Your task to perform on an android device: Open ESPN.com Image 0: 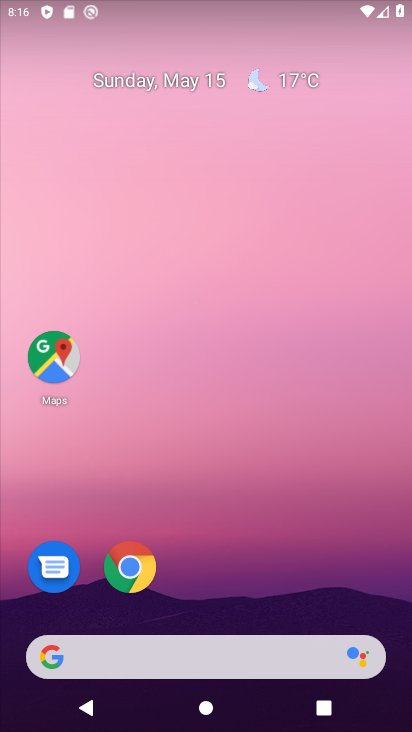
Step 0: click (141, 571)
Your task to perform on an android device: Open ESPN.com Image 1: 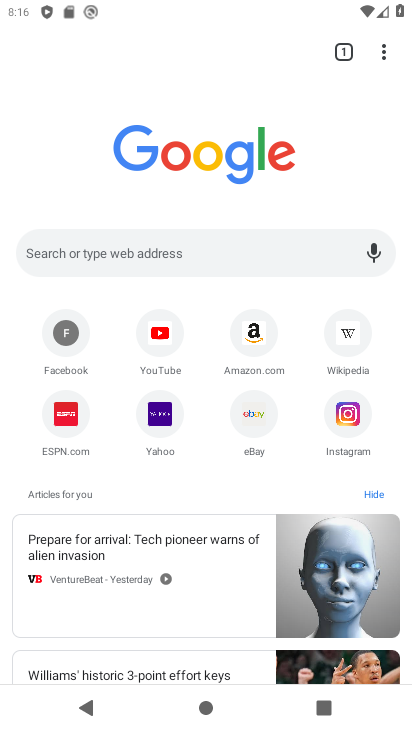
Step 1: click (78, 417)
Your task to perform on an android device: Open ESPN.com Image 2: 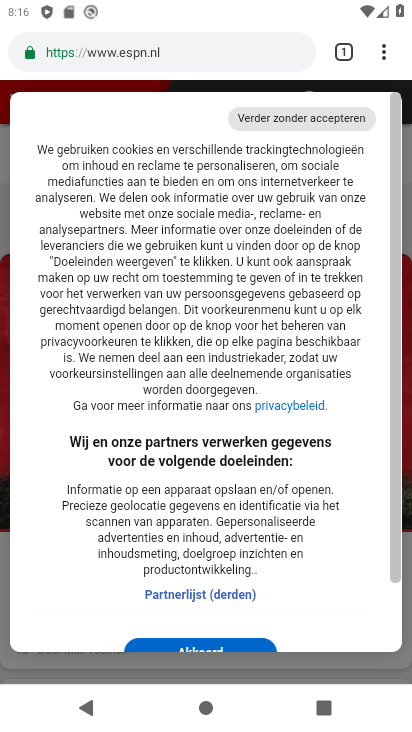
Step 2: task complete